Your task to perform on an android device: Open Google Chrome and click the shortcut for Amazon.com Image 0: 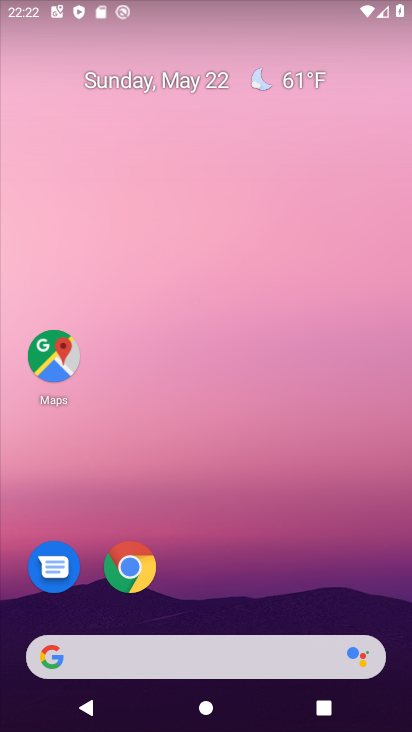
Step 0: click (137, 591)
Your task to perform on an android device: Open Google Chrome and click the shortcut for Amazon.com Image 1: 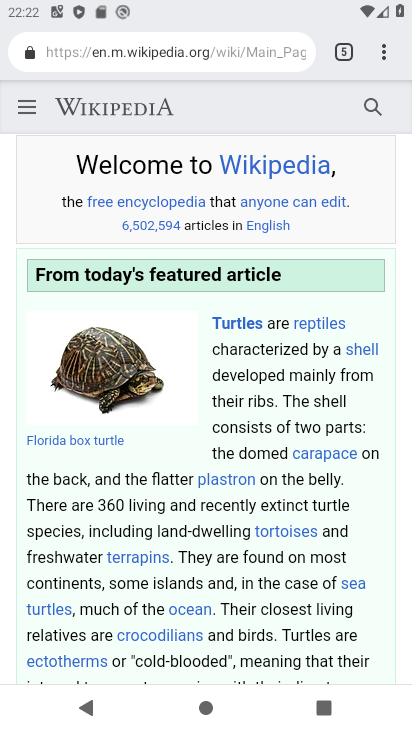
Step 1: click (334, 45)
Your task to perform on an android device: Open Google Chrome and click the shortcut for Amazon.com Image 2: 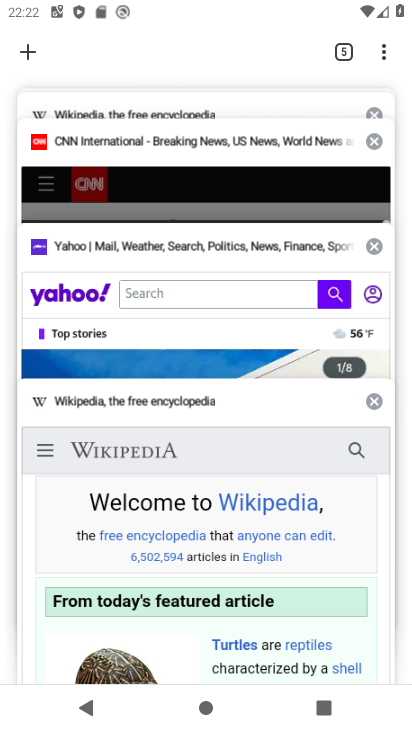
Step 2: click (33, 52)
Your task to perform on an android device: Open Google Chrome and click the shortcut for Amazon.com Image 3: 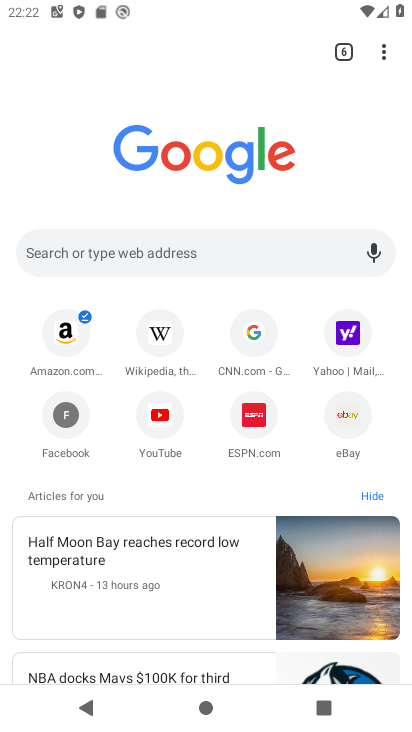
Step 3: click (86, 326)
Your task to perform on an android device: Open Google Chrome and click the shortcut for Amazon.com Image 4: 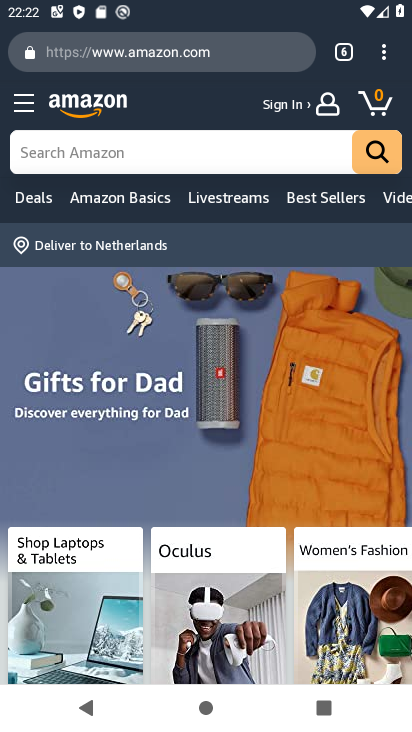
Step 4: task complete